Your task to perform on an android device: Open sound settings Image 0: 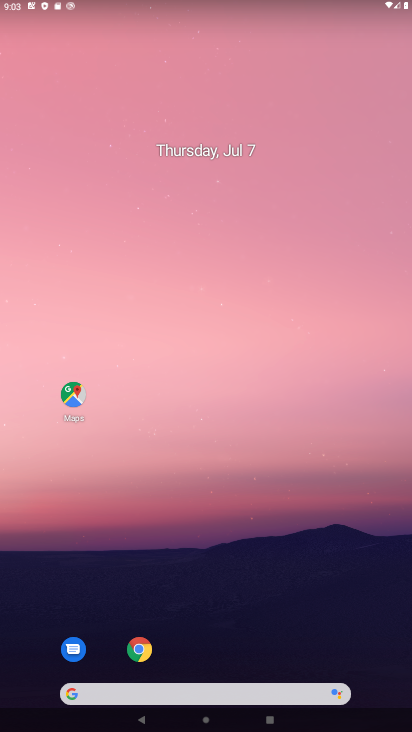
Step 0: drag from (229, 692) to (229, 481)
Your task to perform on an android device: Open sound settings Image 1: 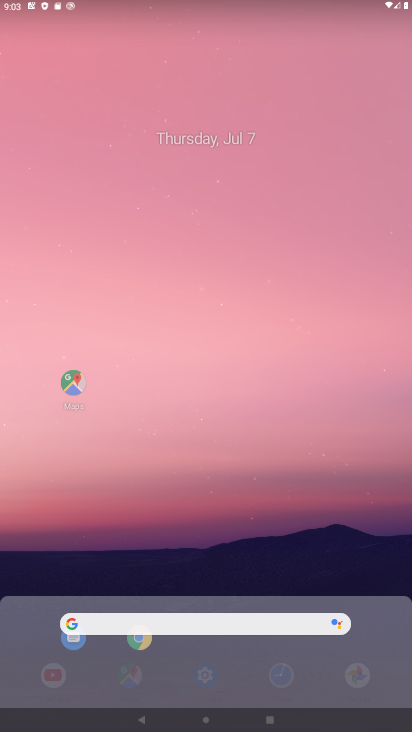
Step 1: drag from (219, 318) to (216, 282)
Your task to perform on an android device: Open sound settings Image 2: 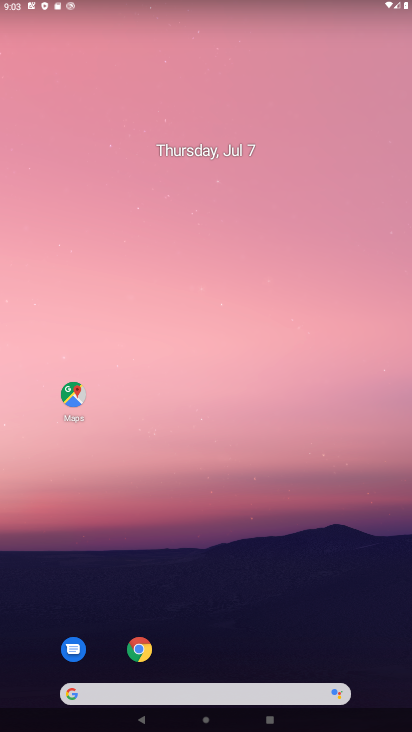
Step 2: drag from (240, 726) to (243, 127)
Your task to perform on an android device: Open sound settings Image 3: 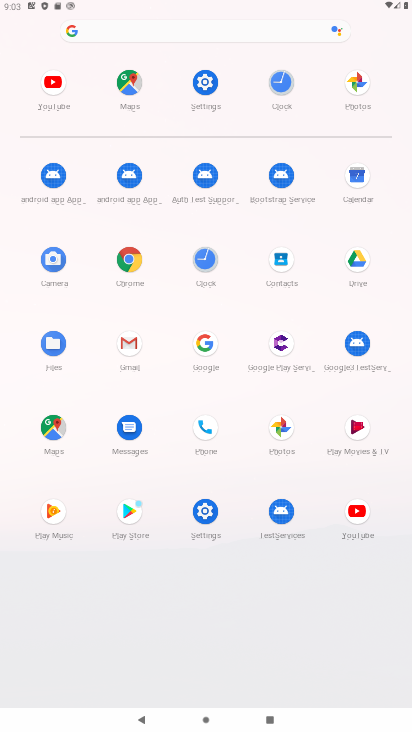
Step 3: click (205, 512)
Your task to perform on an android device: Open sound settings Image 4: 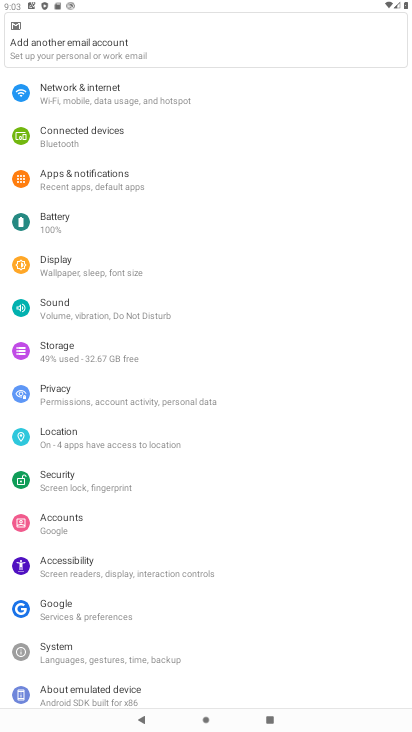
Step 4: click (66, 302)
Your task to perform on an android device: Open sound settings Image 5: 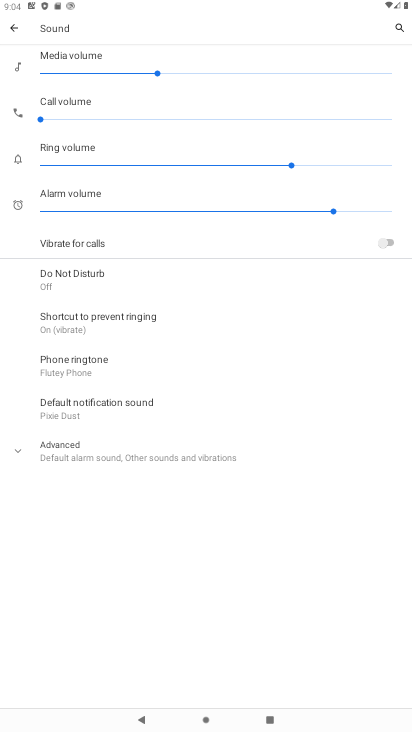
Step 5: task complete